Your task to perform on an android device: Go to ESPN.com Image 0: 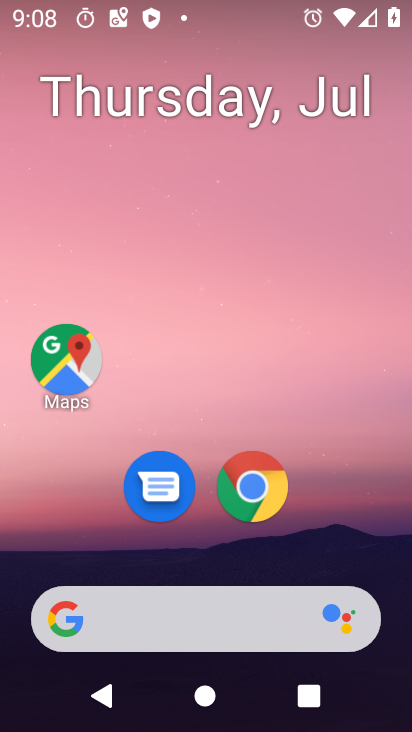
Step 0: drag from (230, 651) to (266, 273)
Your task to perform on an android device: Go to ESPN.com Image 1: 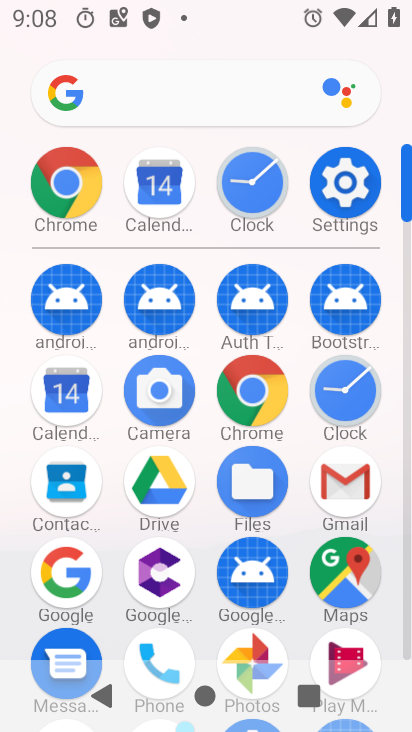
Step 1: click (264, 382)
Your task to perform on an android device: Go to ESPN.com Image 2: 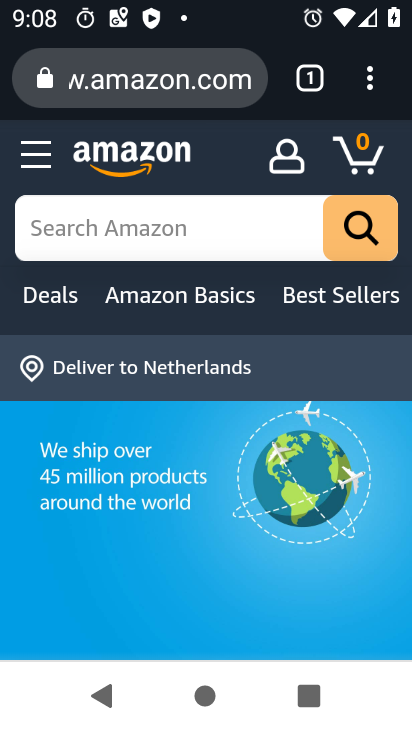
Step 2: click (168, 93)
Your task to perform on an android device: Go to ESPN.com Image 3: 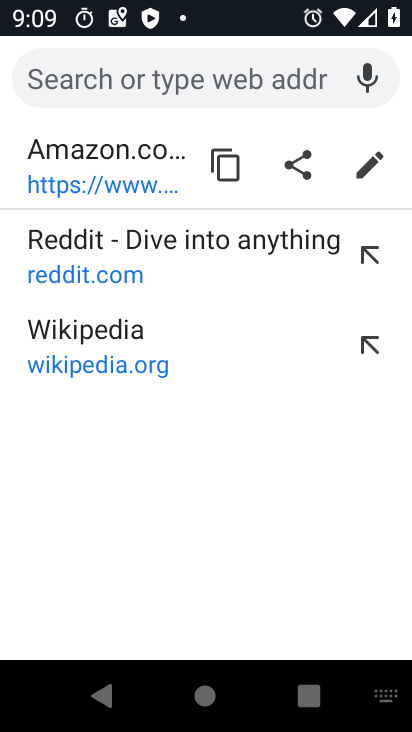
Step 3: type "espn"
Your task to perform on an android device: Go to ESPN.com Image 4: 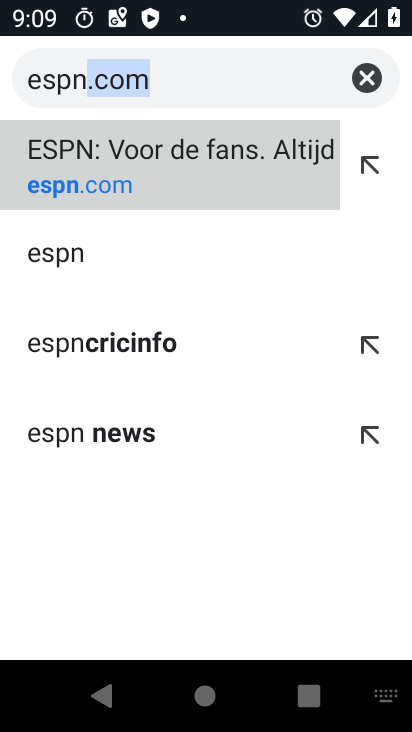
Step 4: click (251, 161)
Your task to perform on an android device: Go to ESPN.com Image 5: 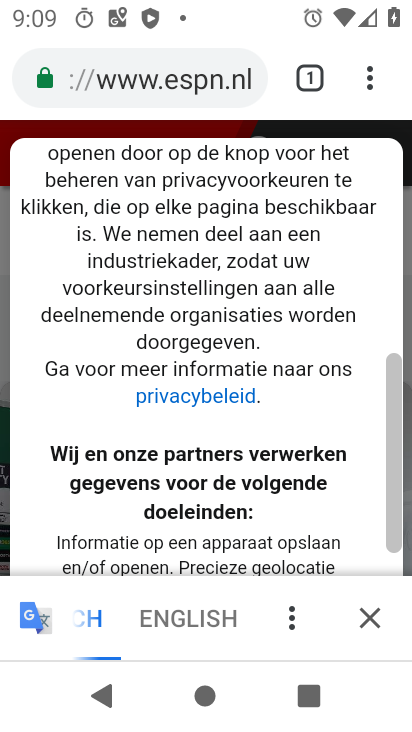
Step 5: task complete